Your task to perform on an android device: turn on showing notifications on the lock screen Image 0: 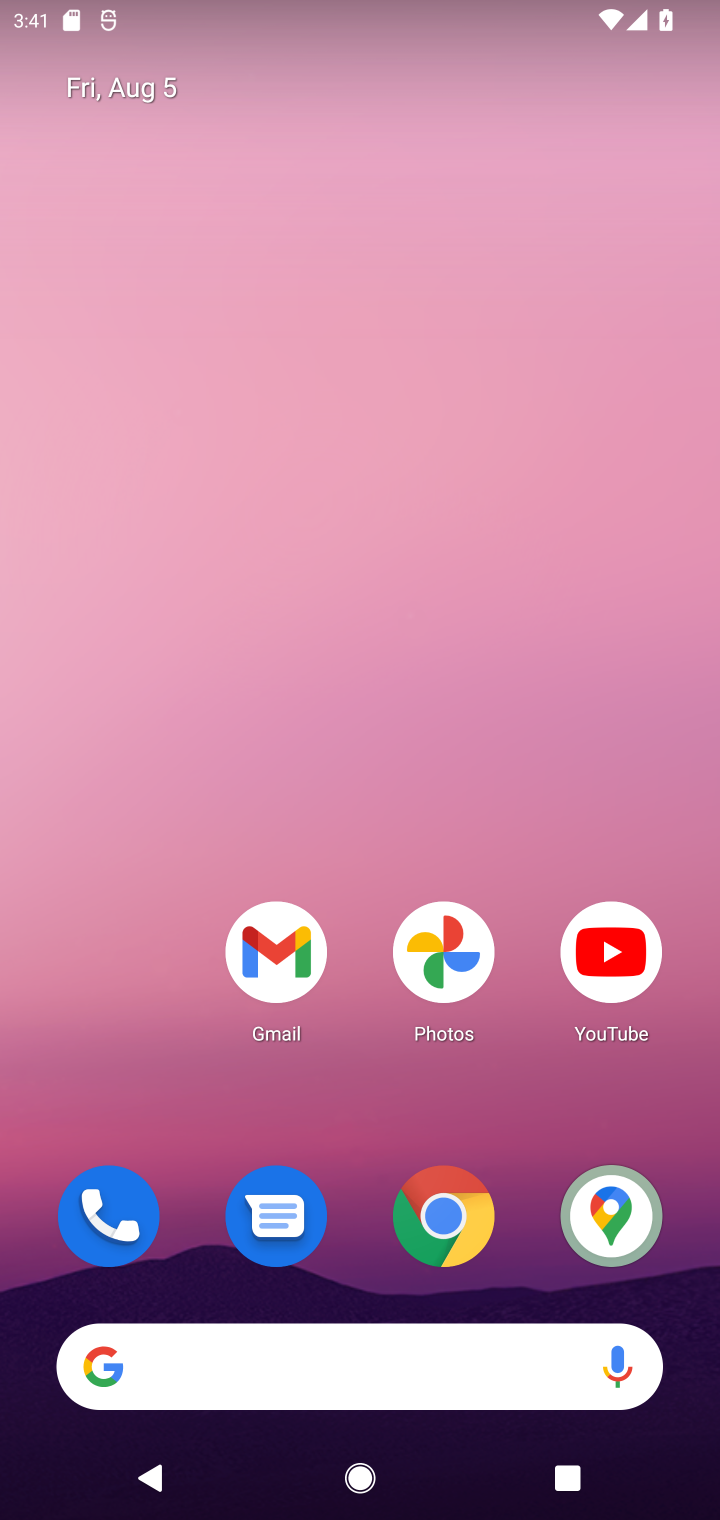
Step 0: drag from (209, 1112) to (224, 249)
Your task to perform on an android device: turn on showing notifications on the lock screen Image 1: 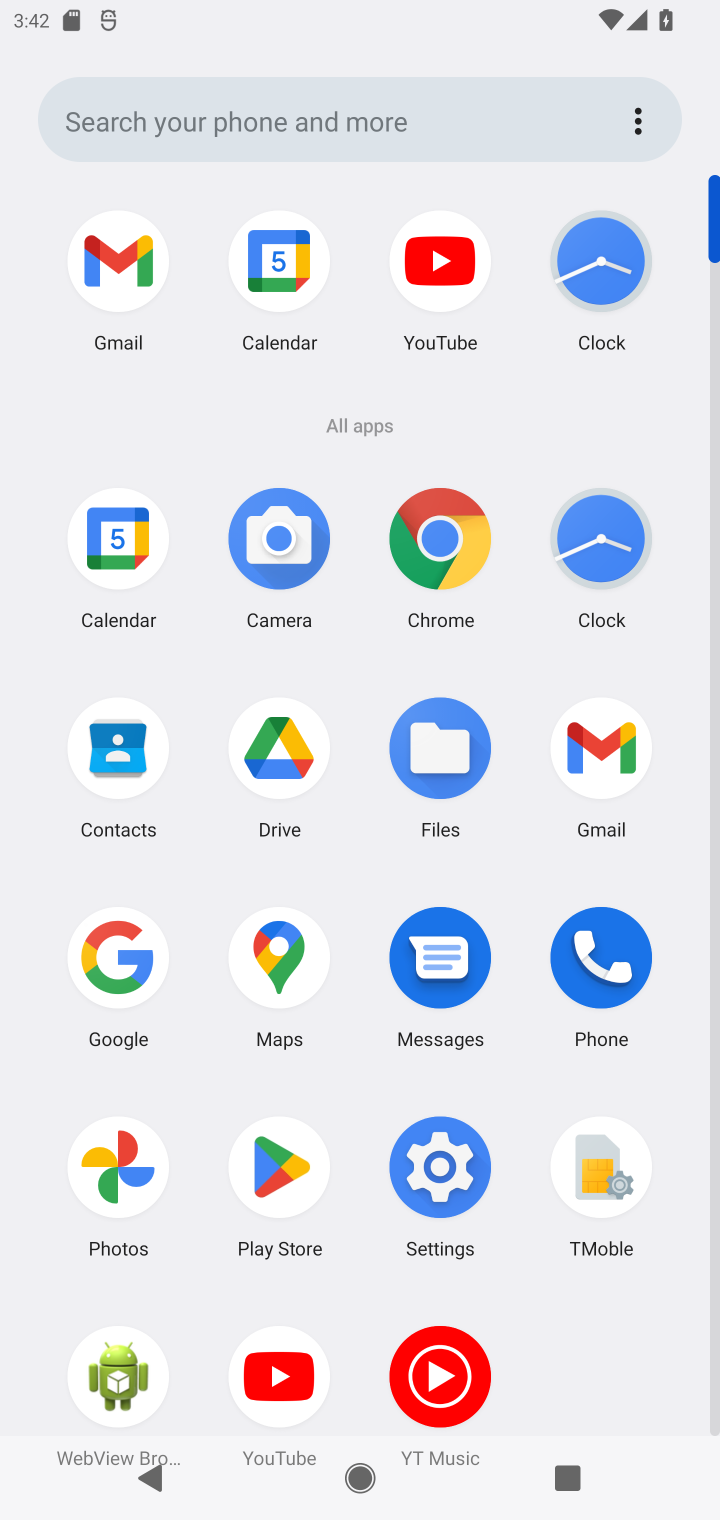
Step 1: click (438, 1173)
Your task to perform on an android device: turn on showing notifications on the lock screen Image 2: 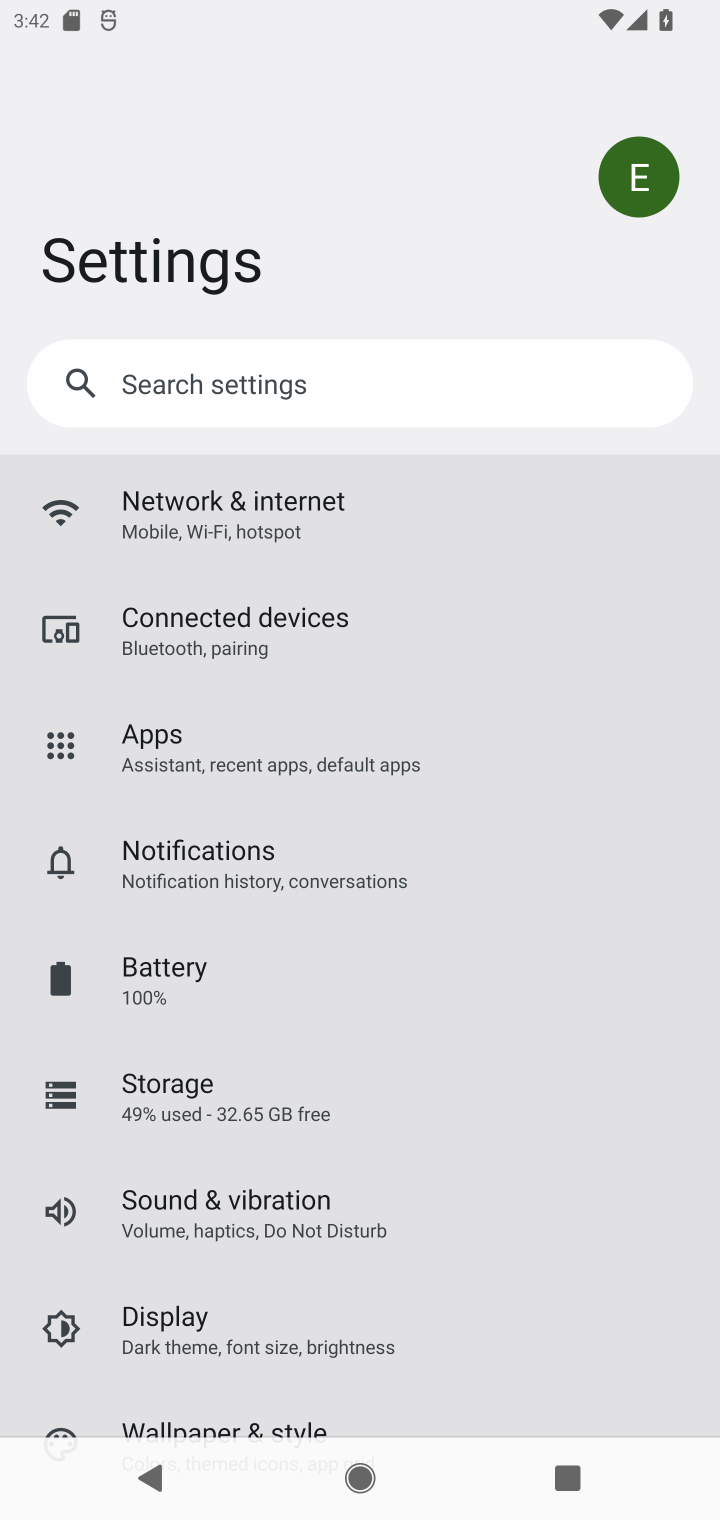
Step 2: click (231, 871)
Your task to perform on an android device: turn on showing notifications on the lock screen Image 3: 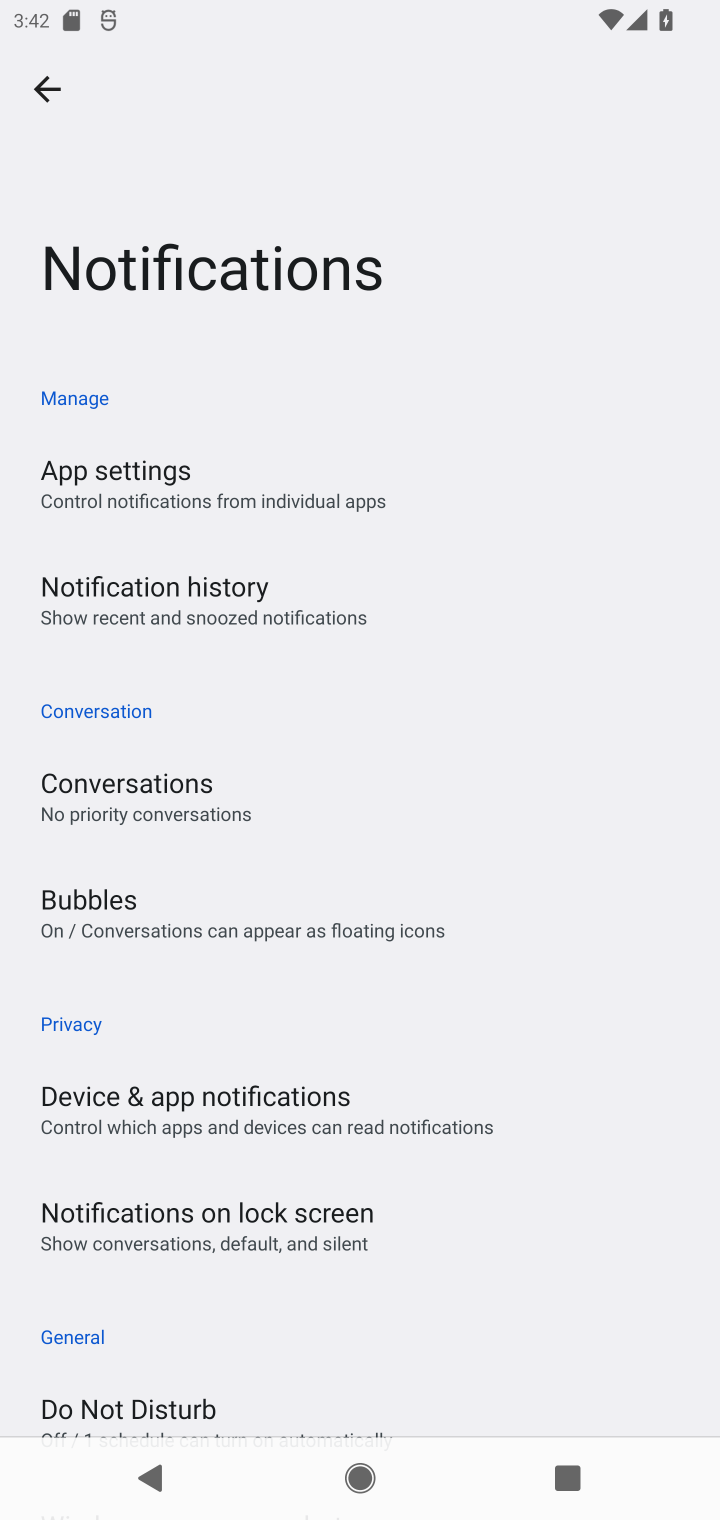
Step 3: click (347, 1221)
Your task to perform on an android device: turn on showing notifications on the lock screen Image 4: 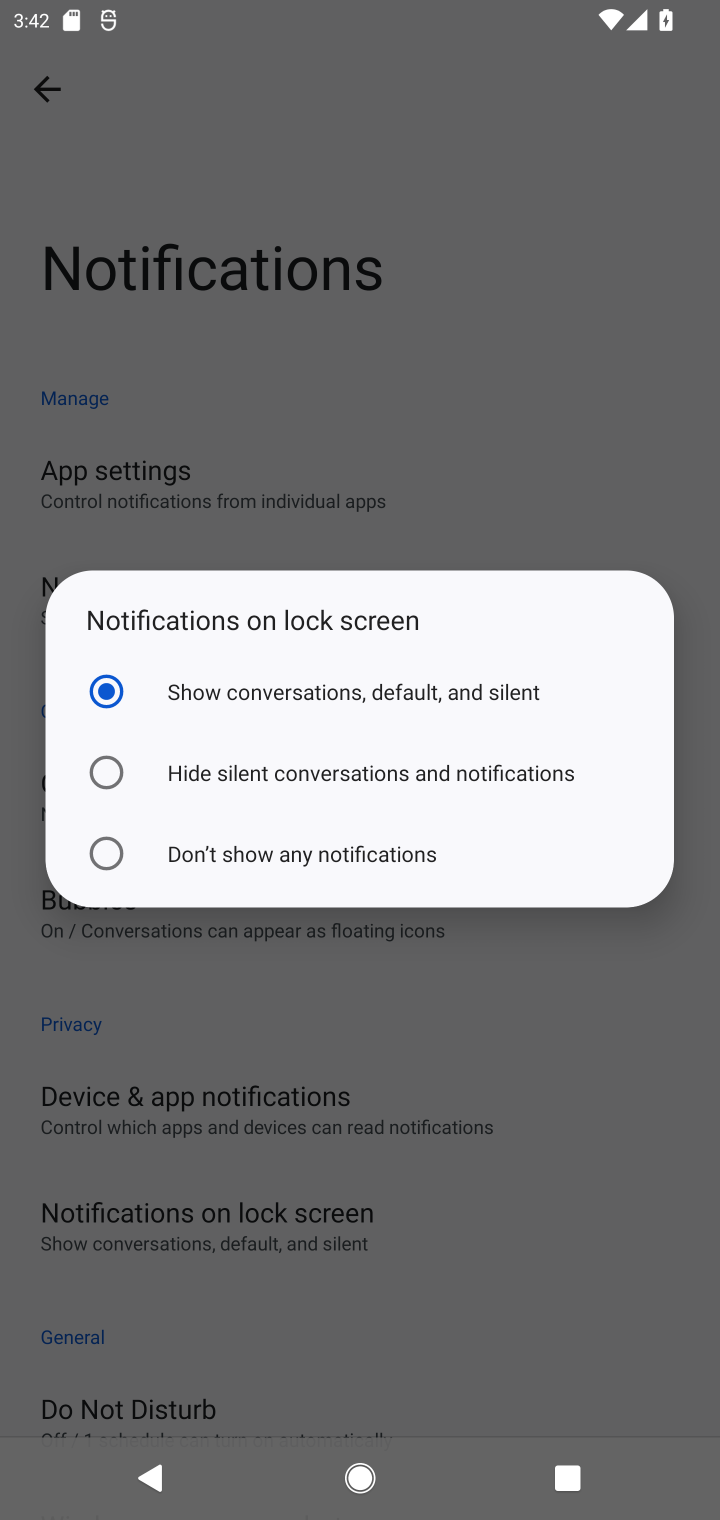
Step 4: click (579, 1037)
Your task to perform on an android device: turn on showing notifications on the lock screen Image 5: 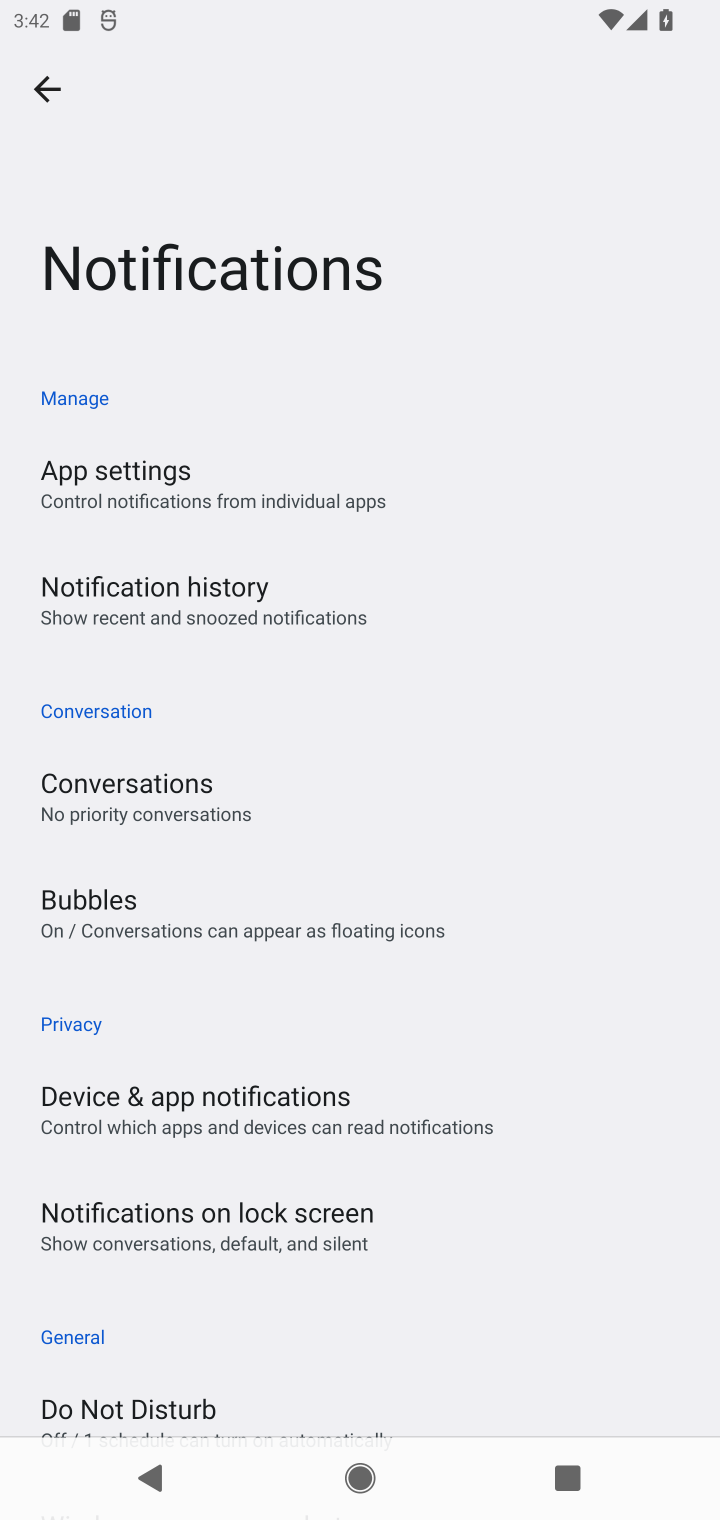
Step 5: task complete